Your task to perform on an android device: Open location settings Image 0: 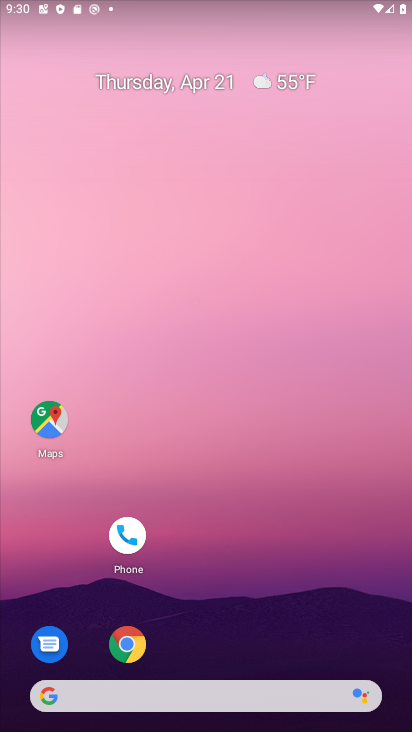
Step 0: drag from (241, 608) to (285, 129)
Your task to perform on an android device: Open location settings Image 1: 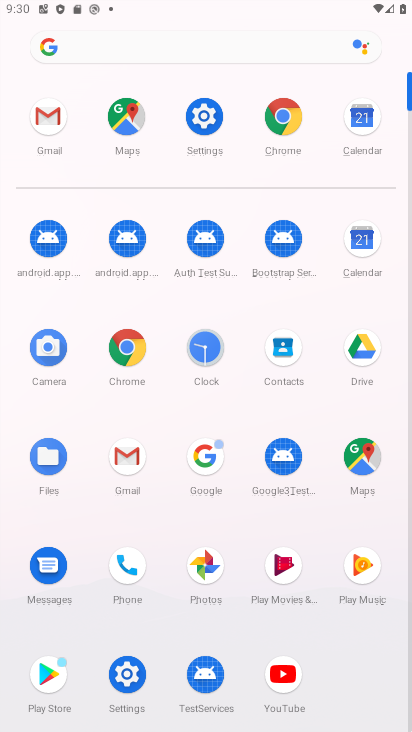
Step 1: click (201, 124)
Your task to perform on an android device: Open location settings Image 2: 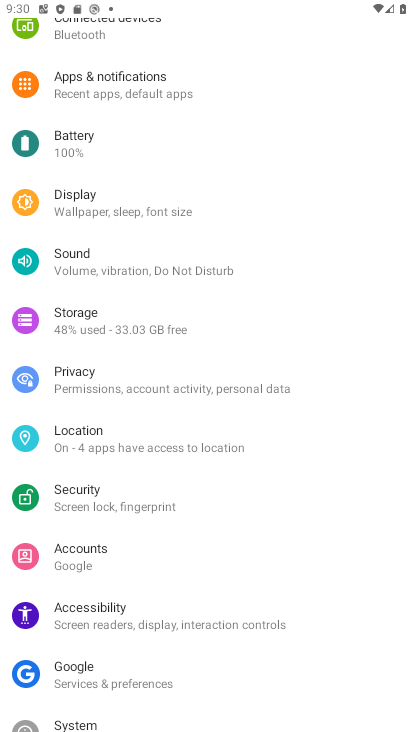
Step 2: drag from (114, 647) to (167, 464)
Your task to perform on an android device: Open location settings Image 3: 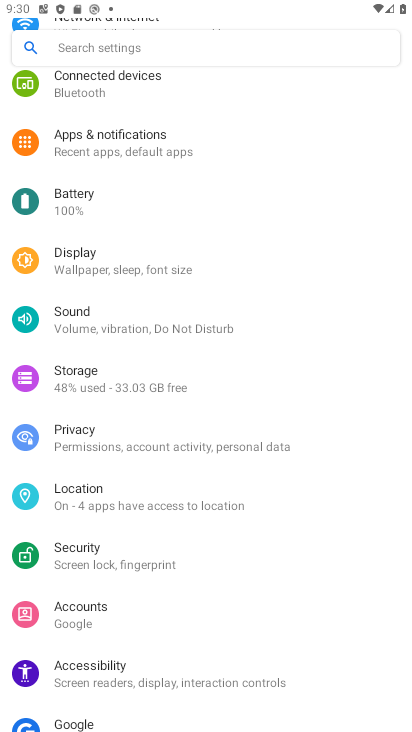
Step 3: click (111, 506)
Your task to perform on an android device: Open location settings Image 4: 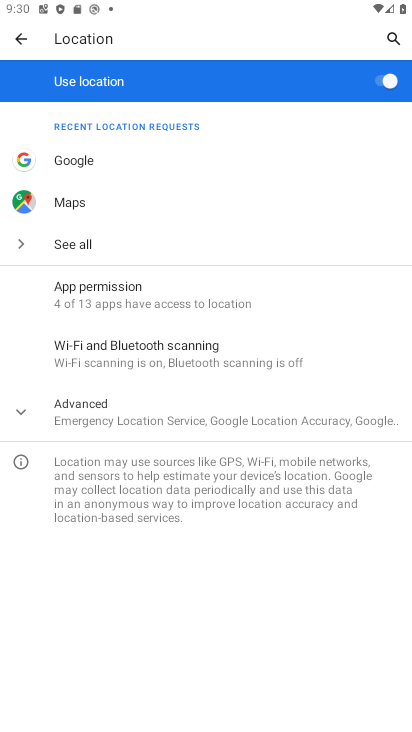
Step 4: task complete